Your task to perform on an android device: empty trash in google photos Image 0: 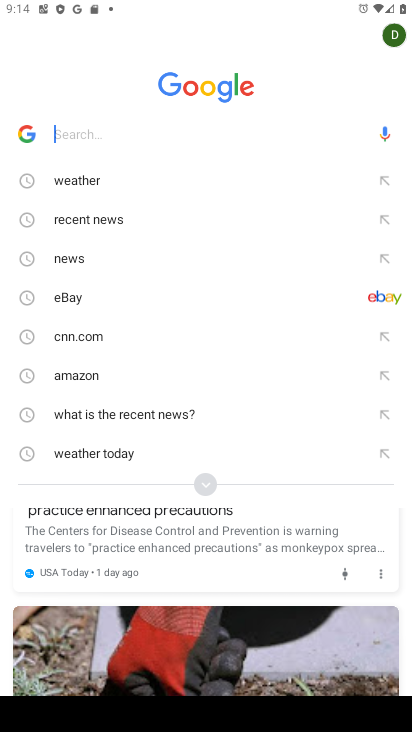
Step 0: press home button
Your task to perform on an android device: empty trash in google photos Image 1: 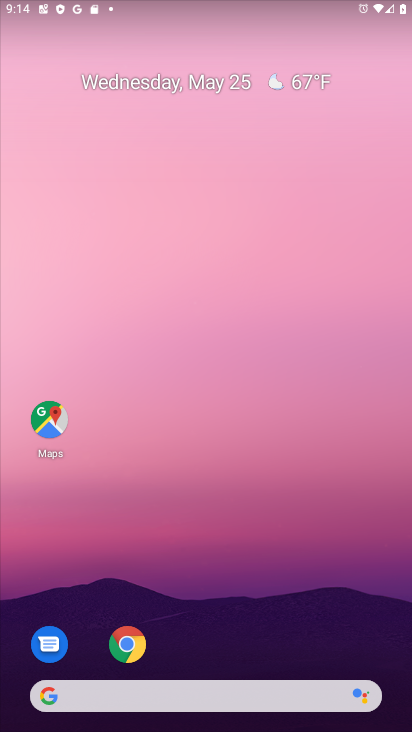
Step 1: drag from (207, 660) to (217, 36)
Your task to perform on an android device: empty trash in google photos Image 2: 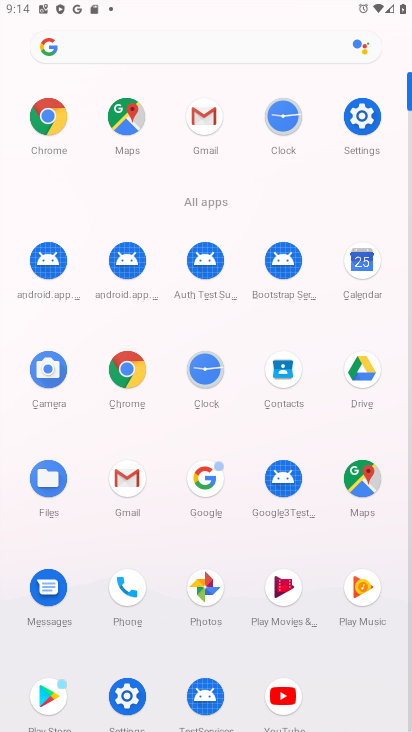
Step 2: click (205, 587)
Your task to perform on an android device: empty trash in google photos Image 3: 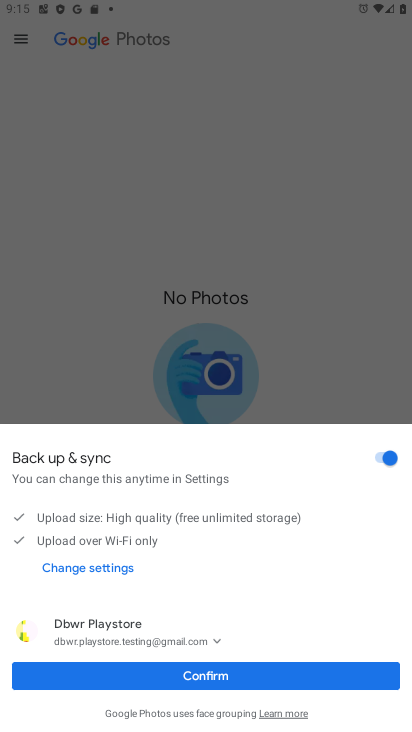
Step 3: click (205, 676)
Your task to perform on an android device: empty trash in google photos Image 4: 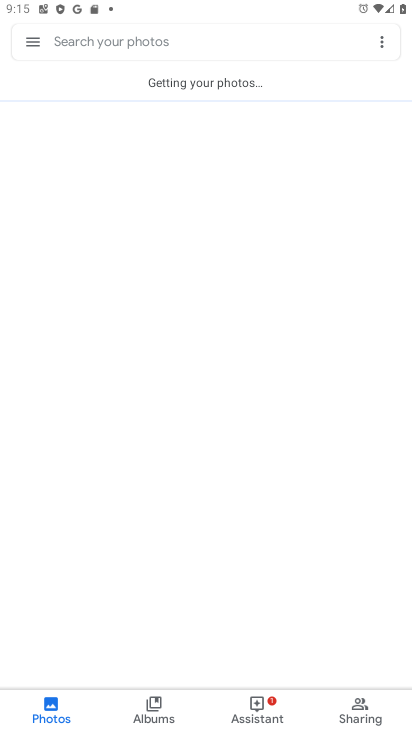
Step 4: click (27, 35)
Your task to perform on an android device: empty trash in google photos Image 5: 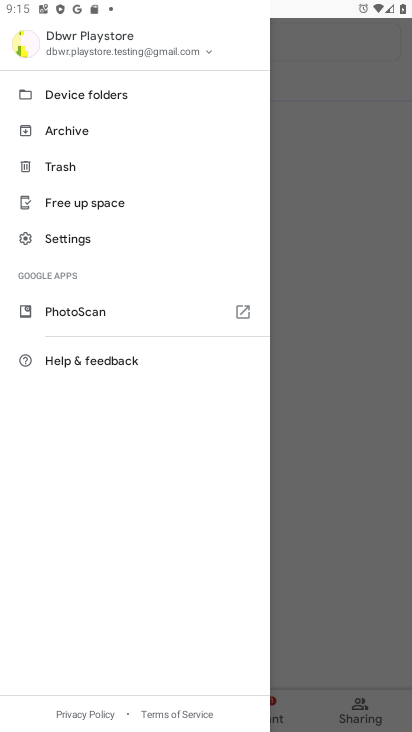
Step 5: click (329, 403)
Your task to perform on an android device: empty trash in google photos Image 6: 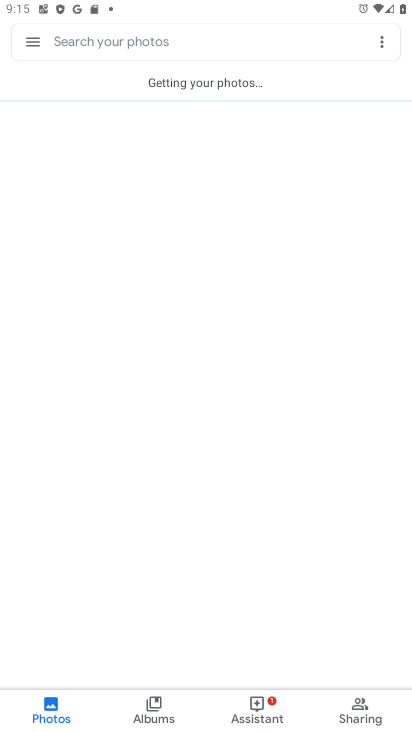
Step 6: click (364, 711)
Your task to perform on an android device: empty trash in google photos Image 7: 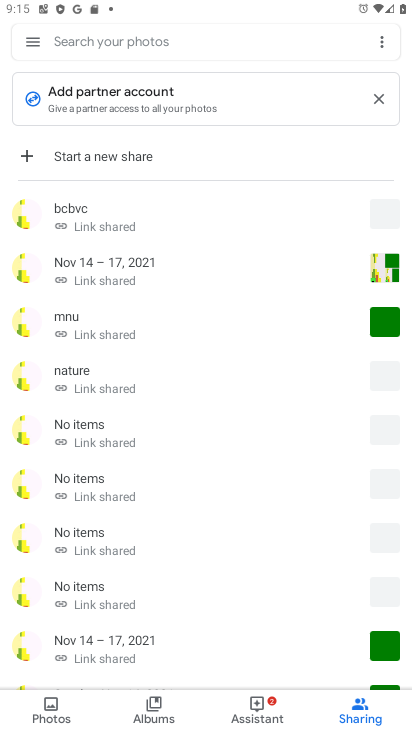
Step 7: click (379, 98)
Your task to perform on an android device: empty trash in google photos Image 8: 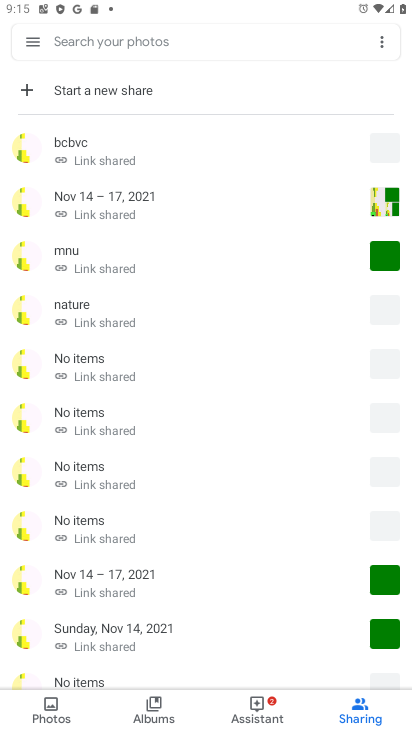
Step 8: click (255, 704)
Your task to perform on an android device: empty trash in google photos Image 9: 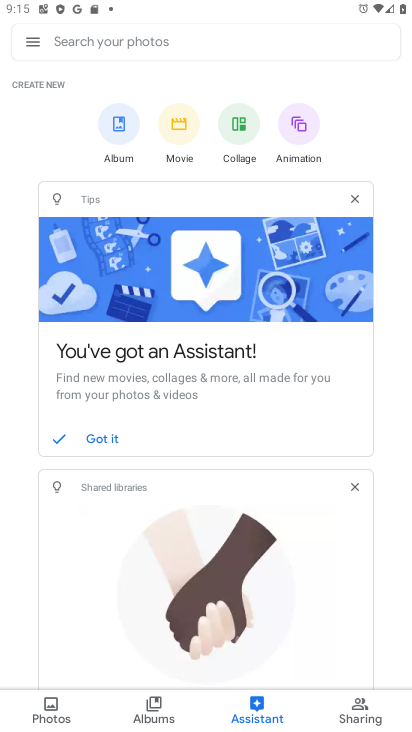
Step 9: click (156, 709)
Your task to perform on an android device: empty trash in google photos Image 10: 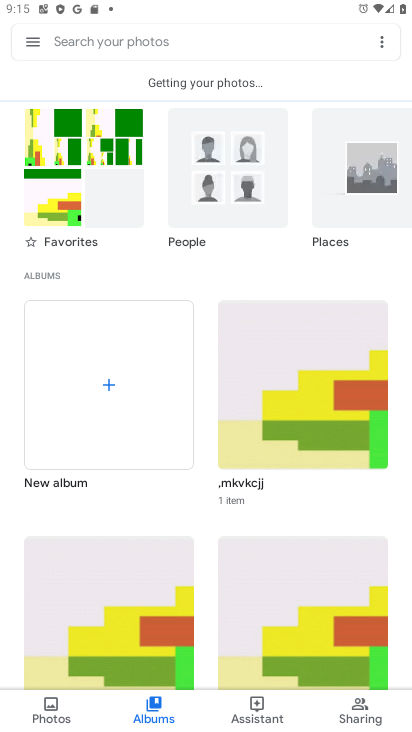
Step 10: click (49, 707)
Your task to perform on an android device: empty trash in google photos Image 11: 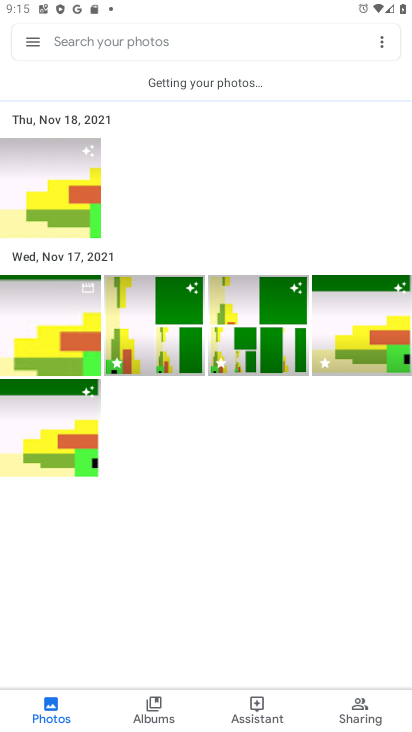
Step 11: click (27, 44)
Your task to perform on an android device: empty trash in google photos Image 12: 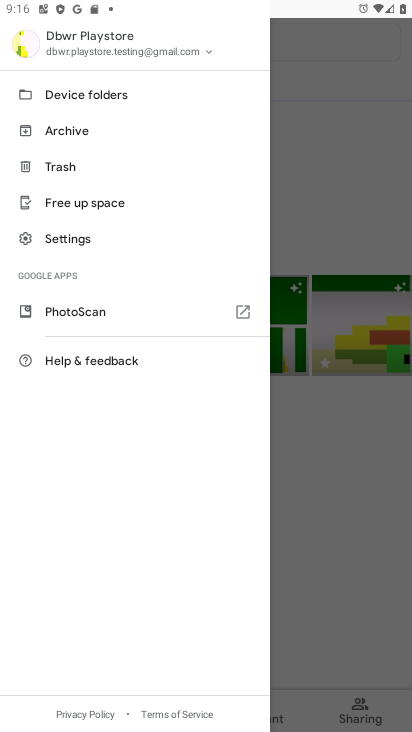
Step 12: click (72, 159)
Your task to perform on an android device: empty trash in google photos Image 13: 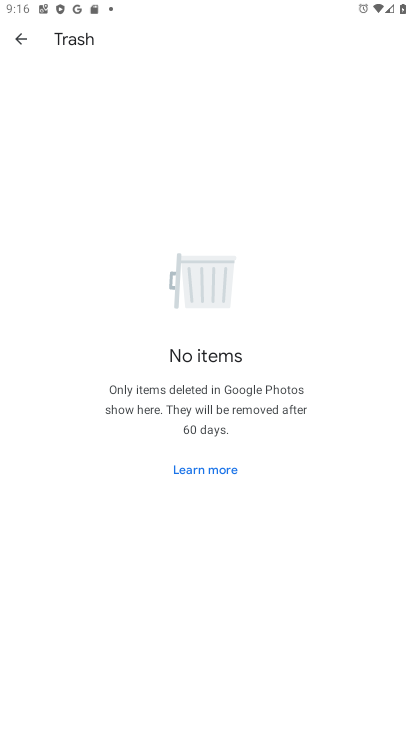
Step 13: task complete